Your task to perform on an android device: open app "WhatsApp Messenger" (install if not already installed), go to login, and select forgot password Image 0: 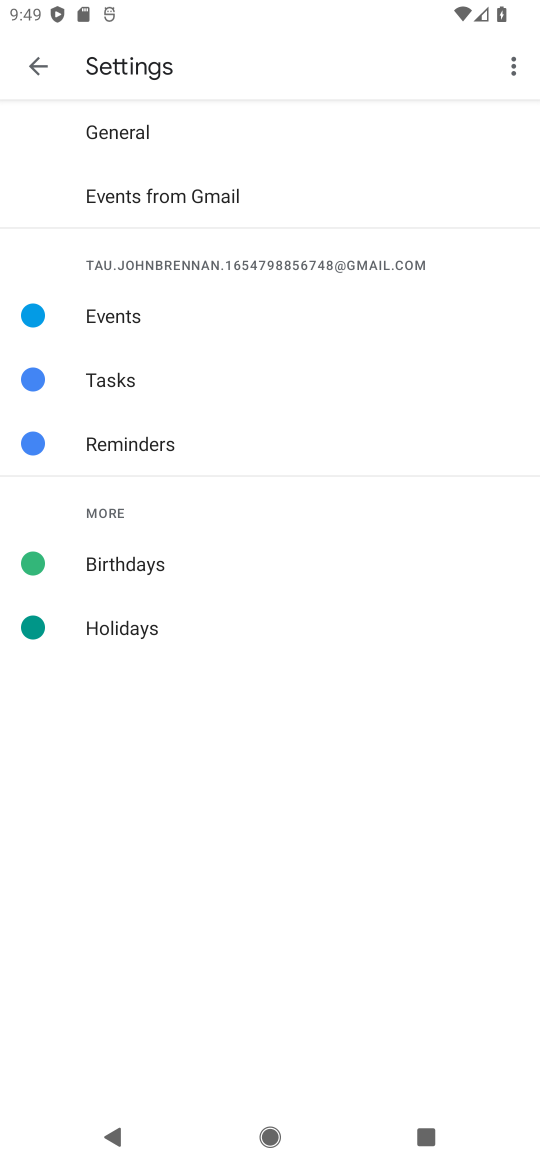
Step 0: press back button
Your task to perform on an android device: open app "WhatsApp Messenger" (install if not already installed), go to login, and select forgot password Image 1: 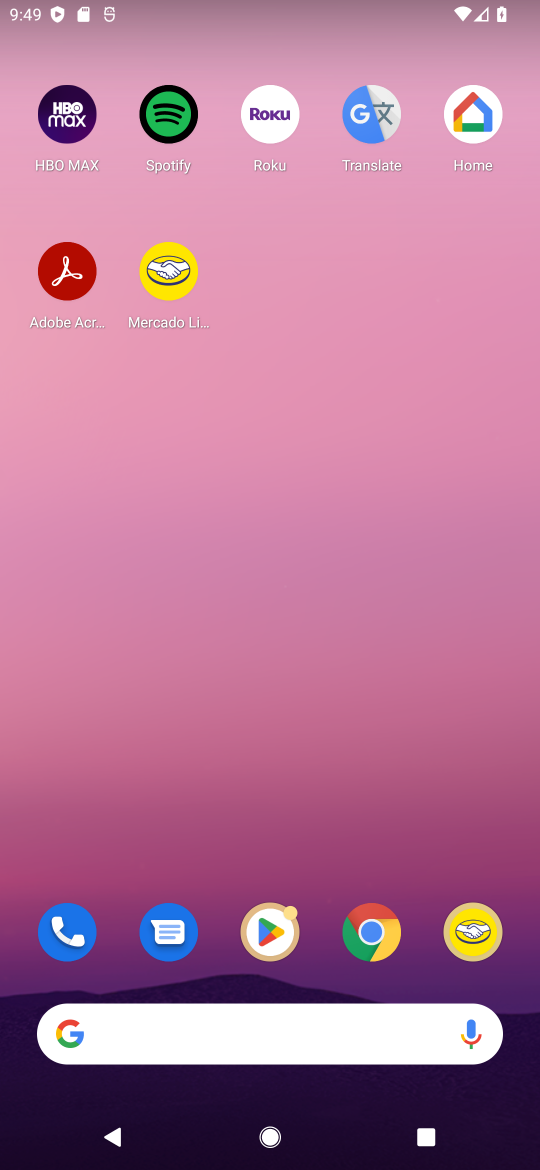
Step 1: click (269, 937)
Your task to perform on an android device: open app "WhatsApp Messenger" (install if not already installed), go to login, and select forgot password Image 2: 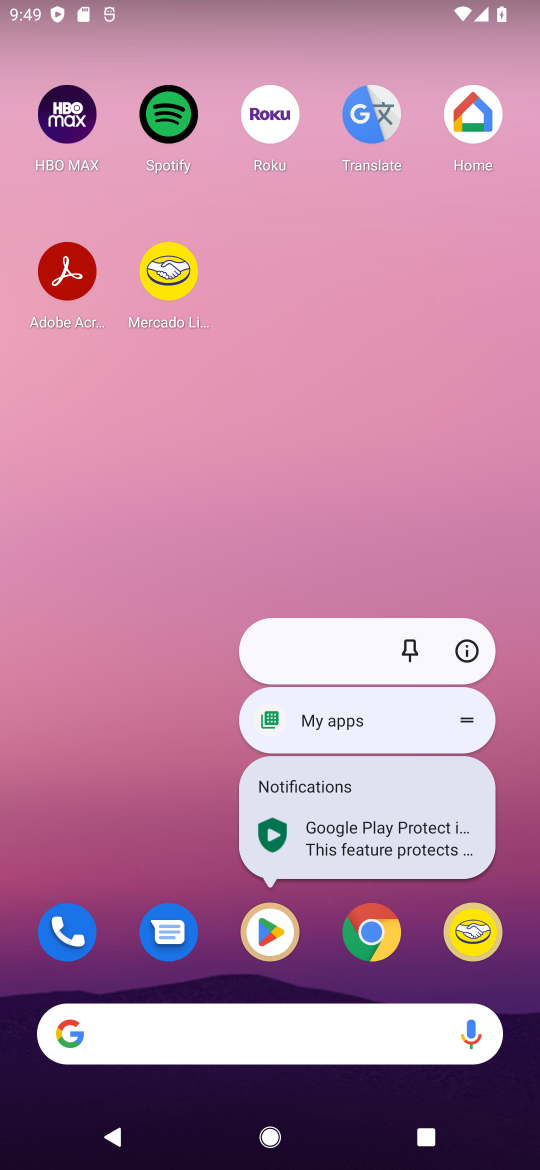
Step 2: click (68, 730)
Your task to perform on an android device: open app "WhatsApp Messenger" (install if not already installed), go to login, and select forgot password Image 3: 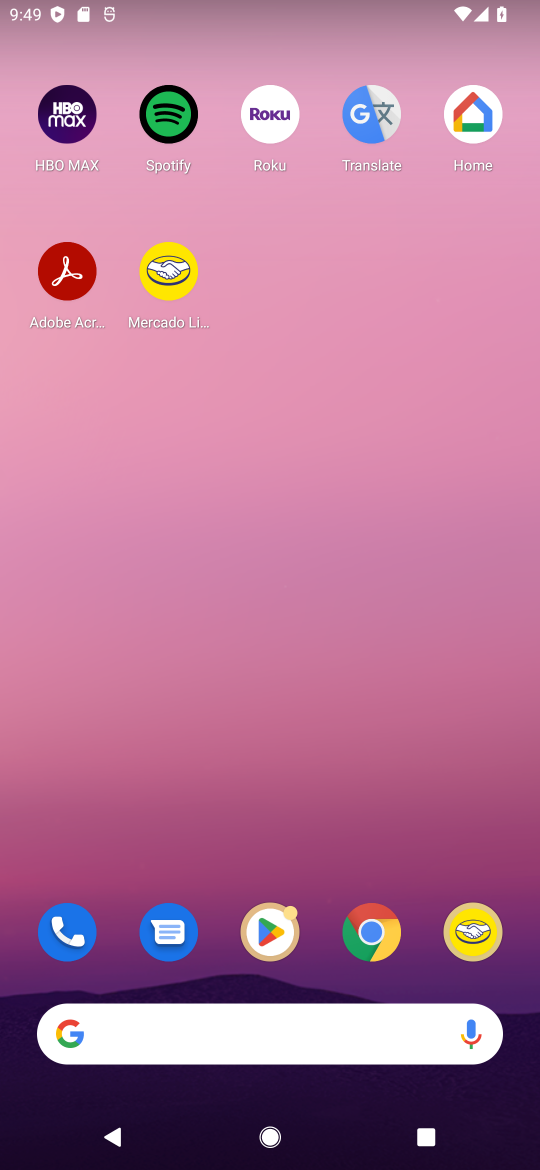
Step 3: click (285, 937)
Your task to perform on an android device: open app "WhatsApp Messenger" (install if not already installed), go to login, and select forgot password Image 4: 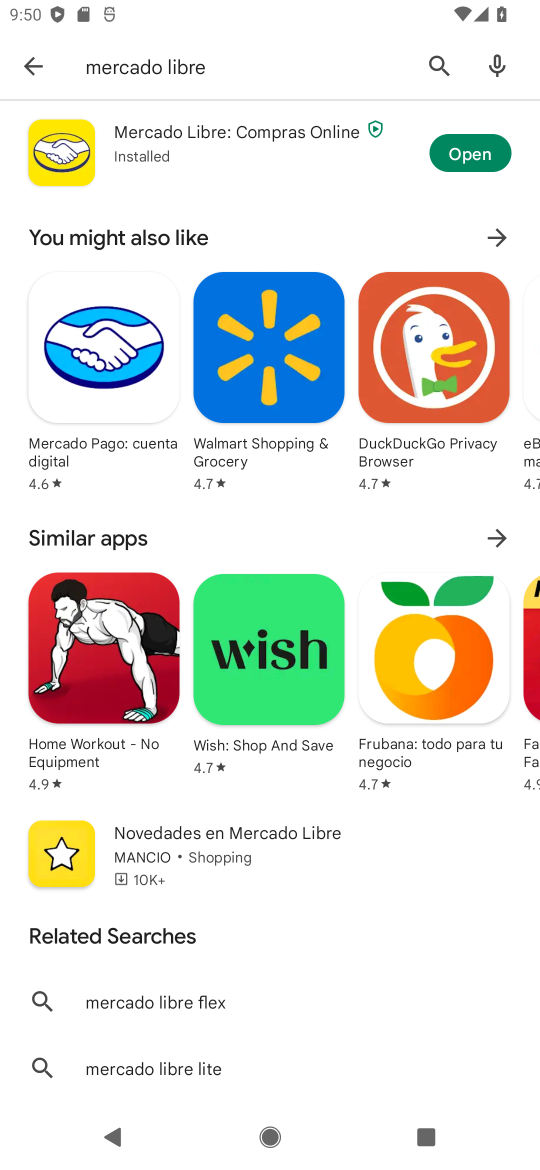
Step 4: click (424, 63)
Your task to perform on an android device: open app "WhatsApp Messenger" (install if not already installed), go to login, and select forgot password Image 5: 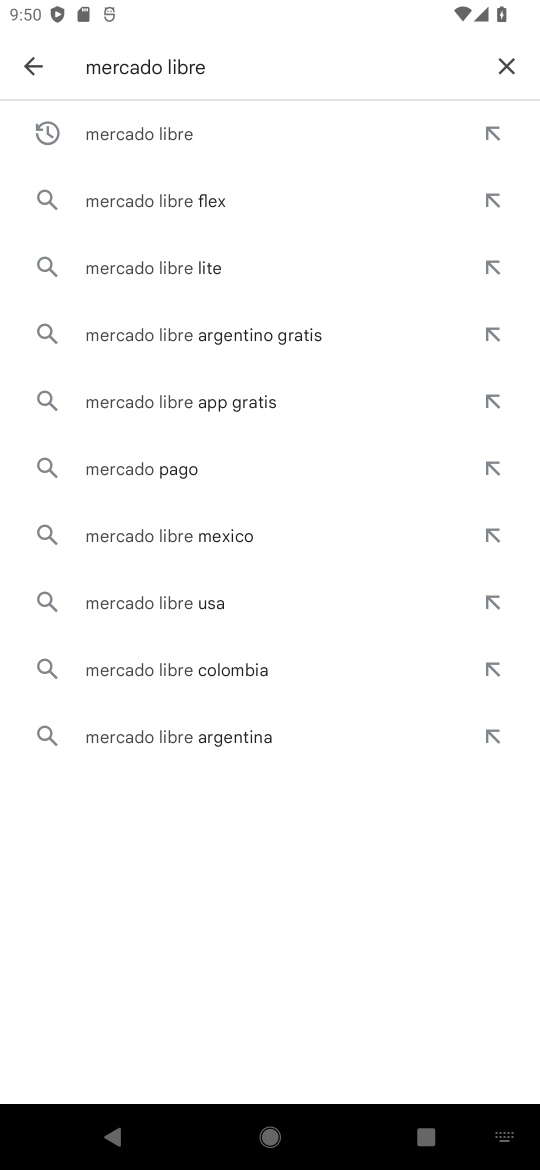
Step 5: click (498, 51)
Your task to perform on an android device: open app "WhatsApp Messenger" (install if not already installed), go to login, and select forgot password Image 6: 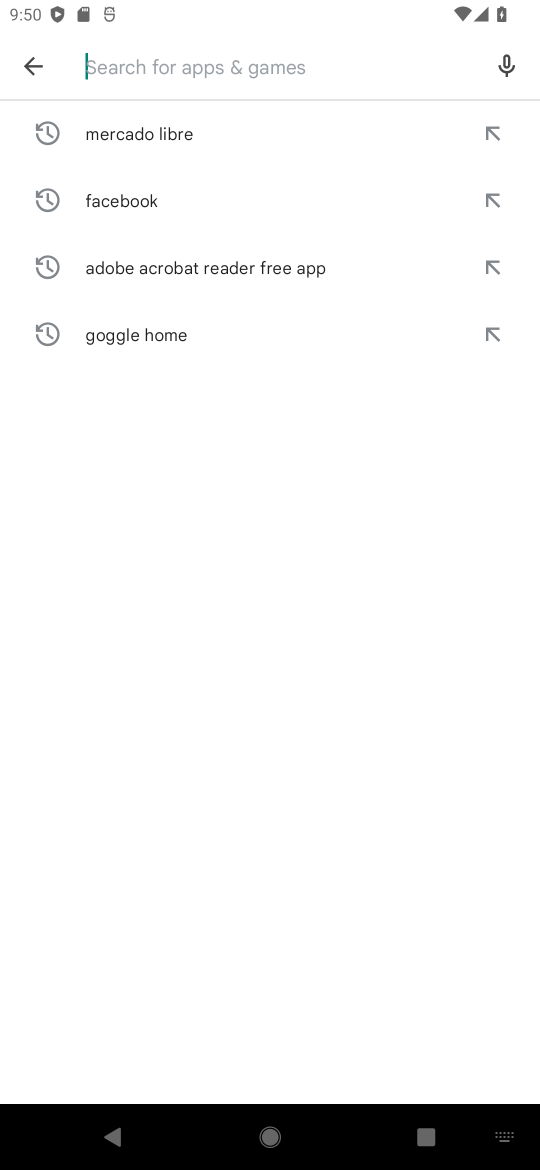
Step 6: click (154, 51)
Your task to perform on an android device: open app "WhatsApp Messenger" (install if not already installed), go to login, and select forgot password Image 7: 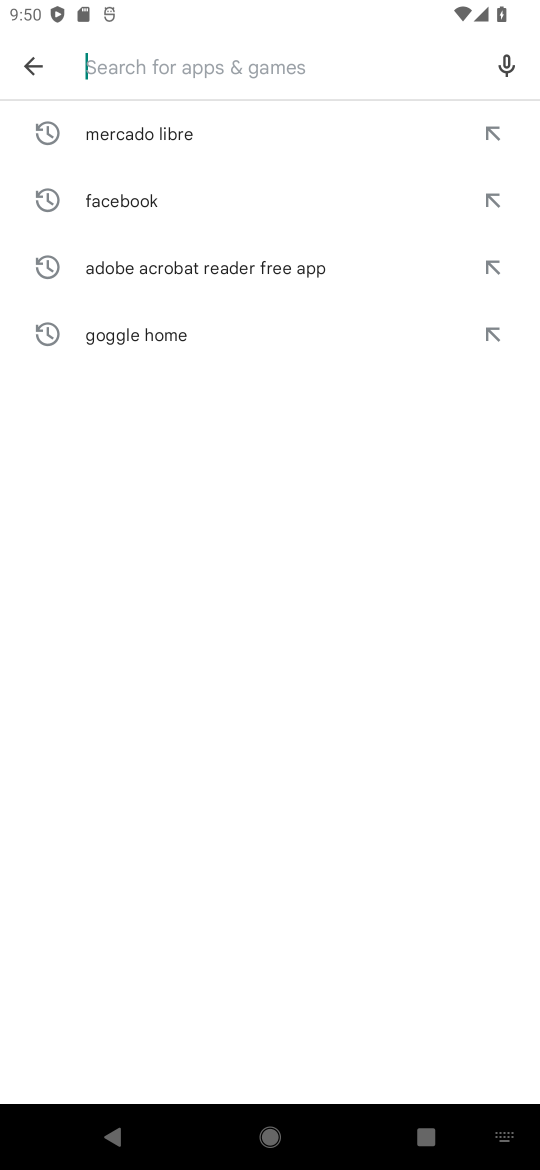
Step 7: click (142, 69)
Your task to perform on an android device: open app "WhatsApp Messenger" (install if not already installed), go to login, and select forgot password Image 8: 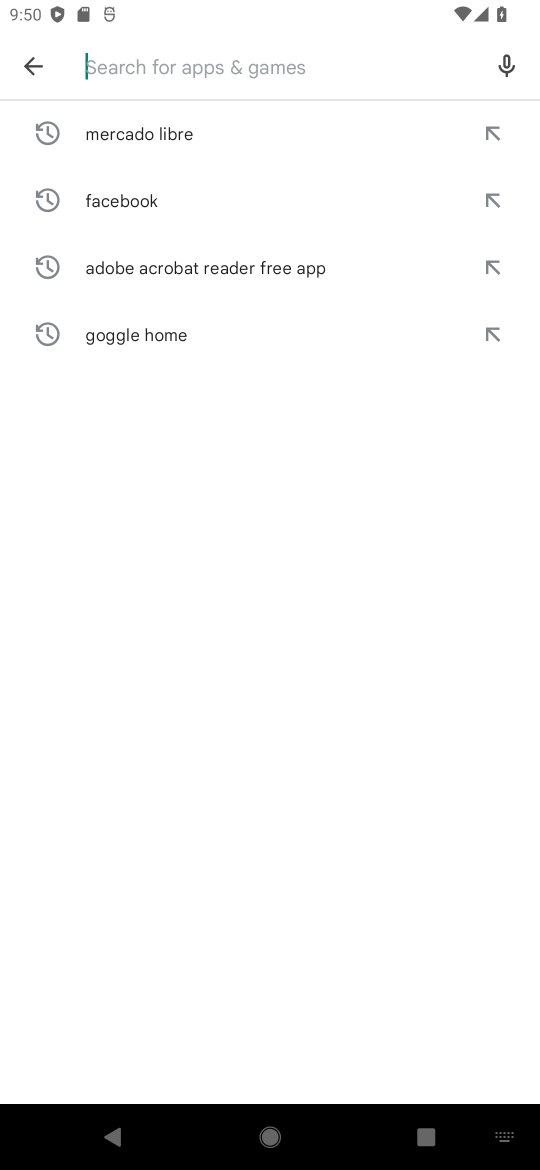
Step 8: type "WhatsApp Messenger"
Your task to perform on an android device: open app "WhatsApp Messenger" (install if not already installed), go to login, and select forgot password Image 9: 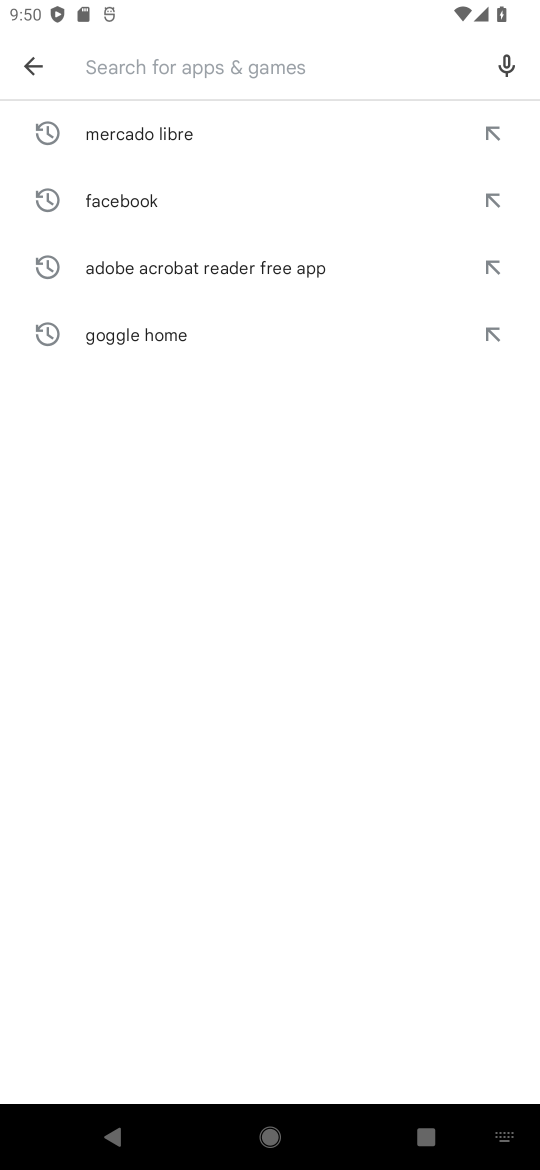
Step 9: click (254, 711)
Your task to perform on an android device: open app "WhatsApp Messenger" (install if not already installed), go to login, and select forgot password Image 10: 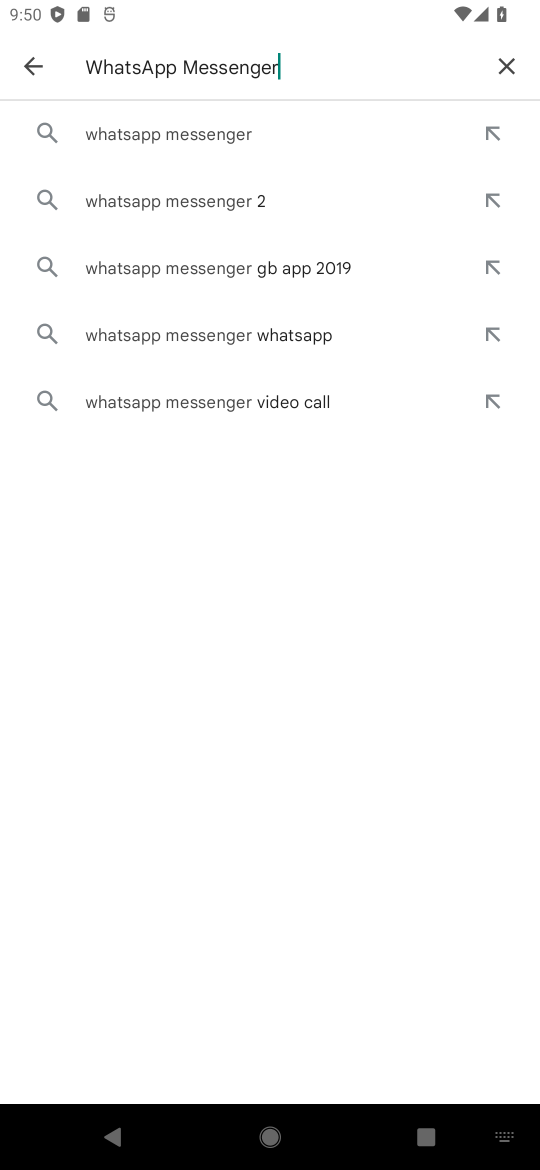
Step 10: click (197, 133)
Your task to perform on an android device: open app "WhatsApp Messenger" (install if not already installed), go to login, and select forgot password Image 11: 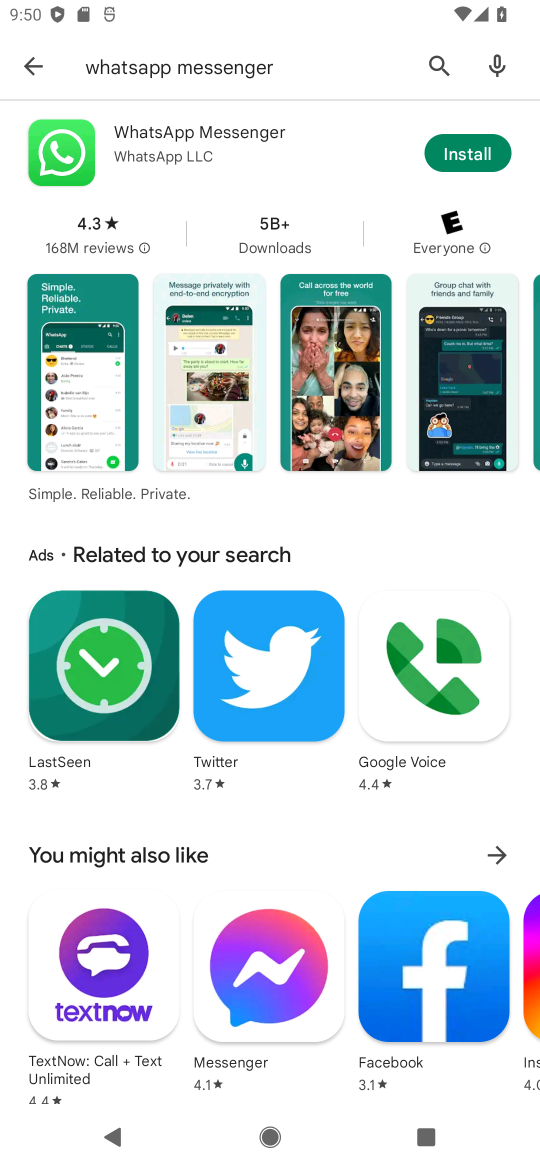
Step 11: click (467, 147)
Your task to perform on an android device: open app "WhatsApp Messenger" (install if not already installed), go to login, and select forgot password Image 12: 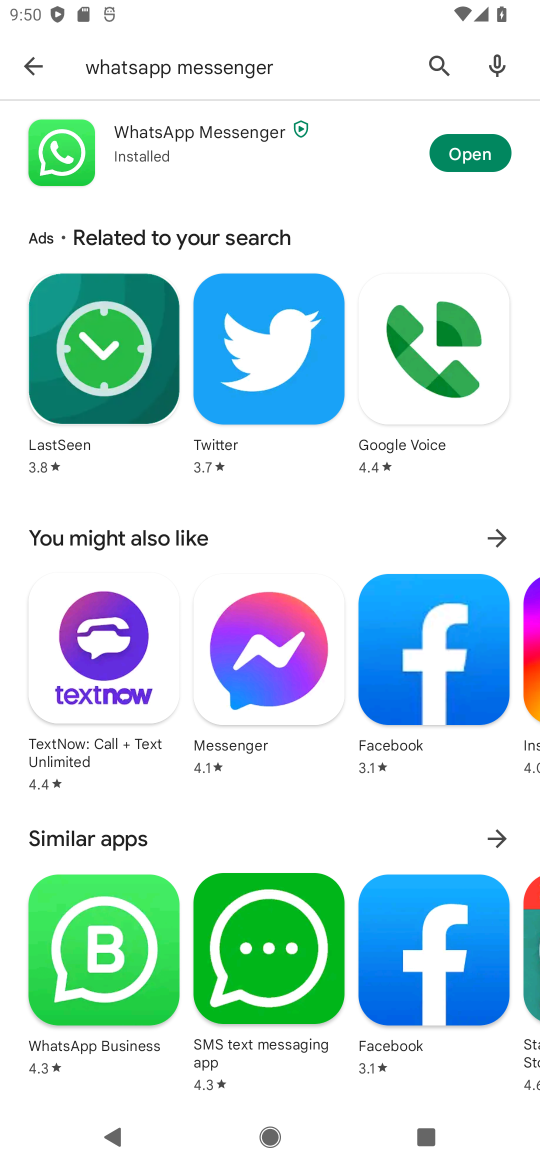
Step 12: click (473, 148)
Your task to perform on an android device: open app "WhatsApp Messenger" (install if not already installed), go to login, and select forgot password Image 13: 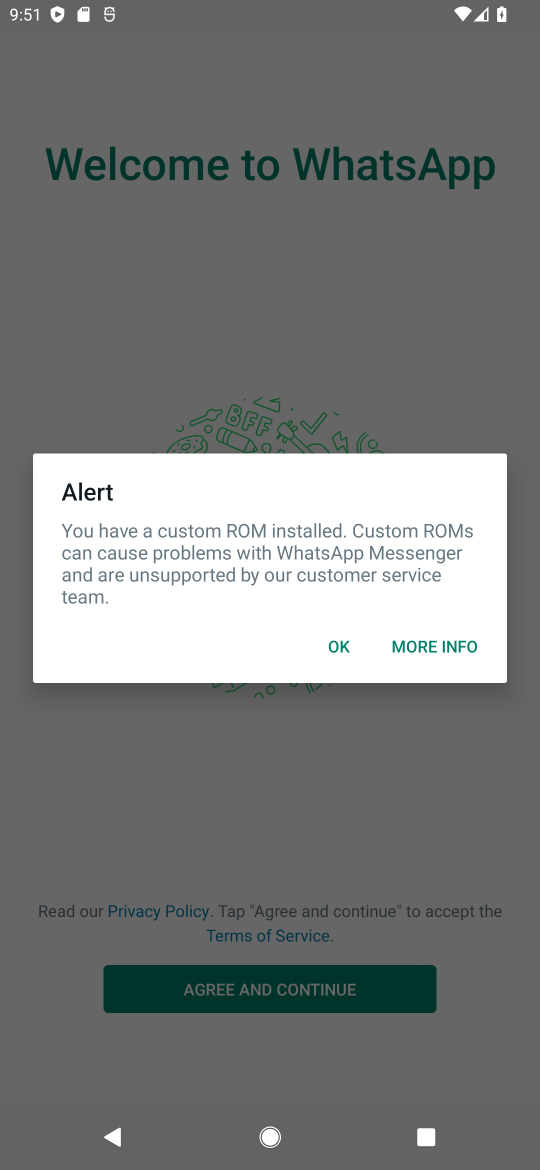
Step 13: task complete